Your task to perform on an android device: open app "Microsoft Outlook" (install if not already installed) Image 0: 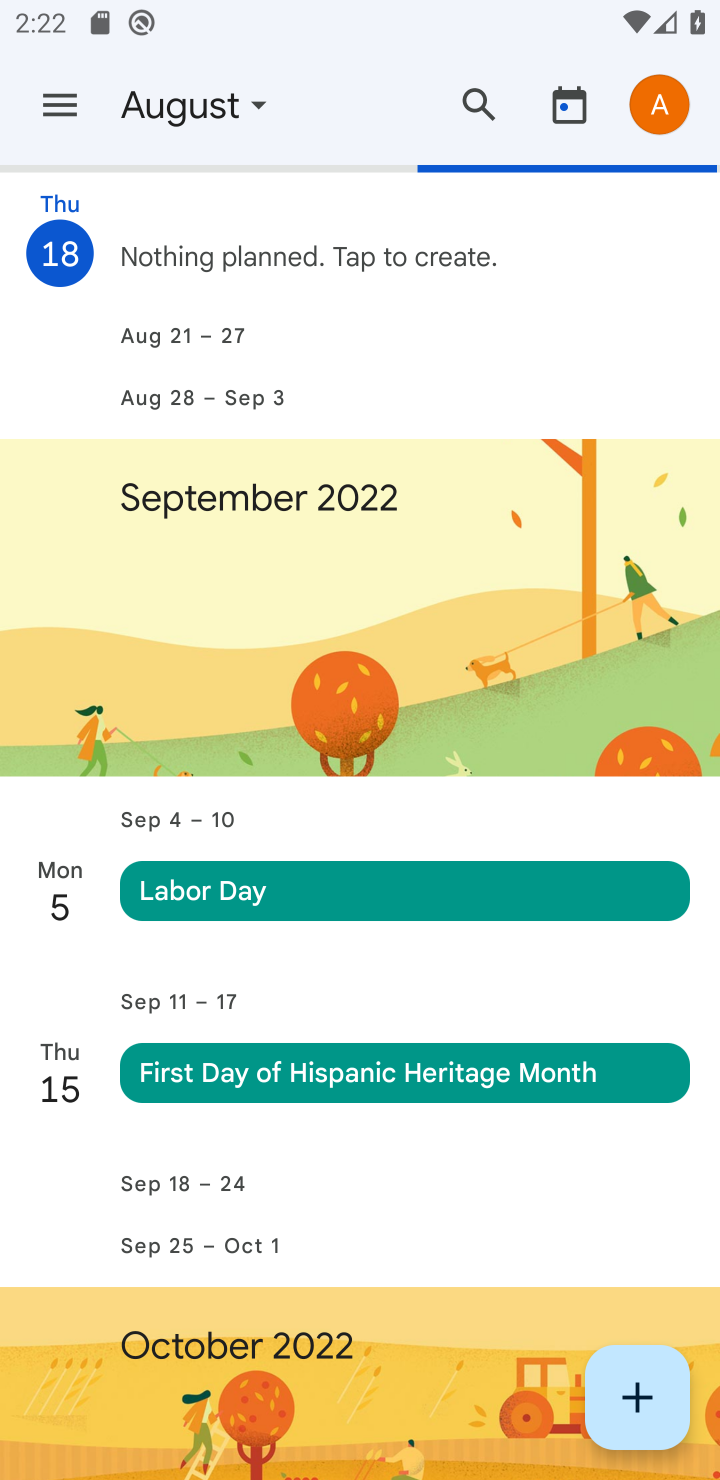
Step 0: press home button
Your task to perform on an android device: open app "Microsoft Outlook" (install if not already installed) Image 1: 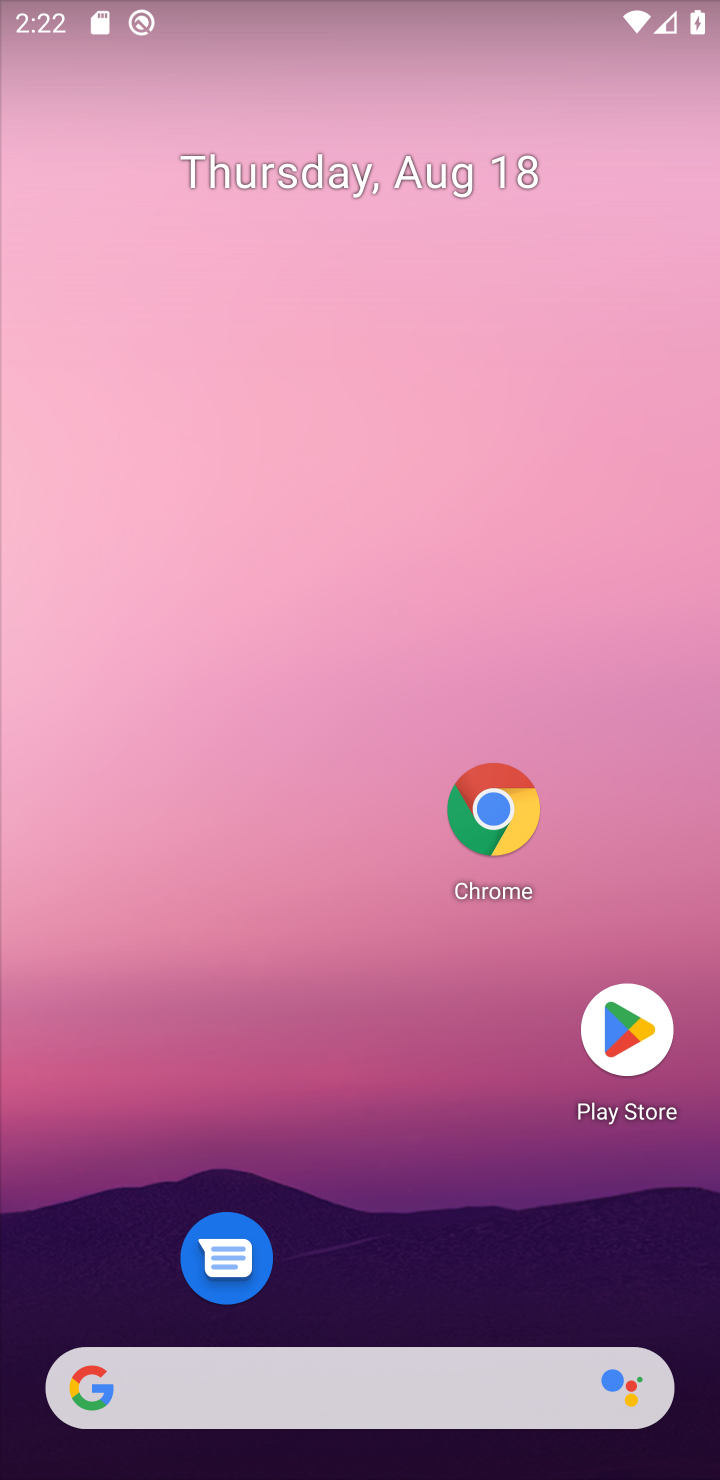
Step 1: drag from (315, 1037) to (367, 462)
Your task to perform on an android device: open app "Microsoft Outlook" (install if not already installed) Image 2: 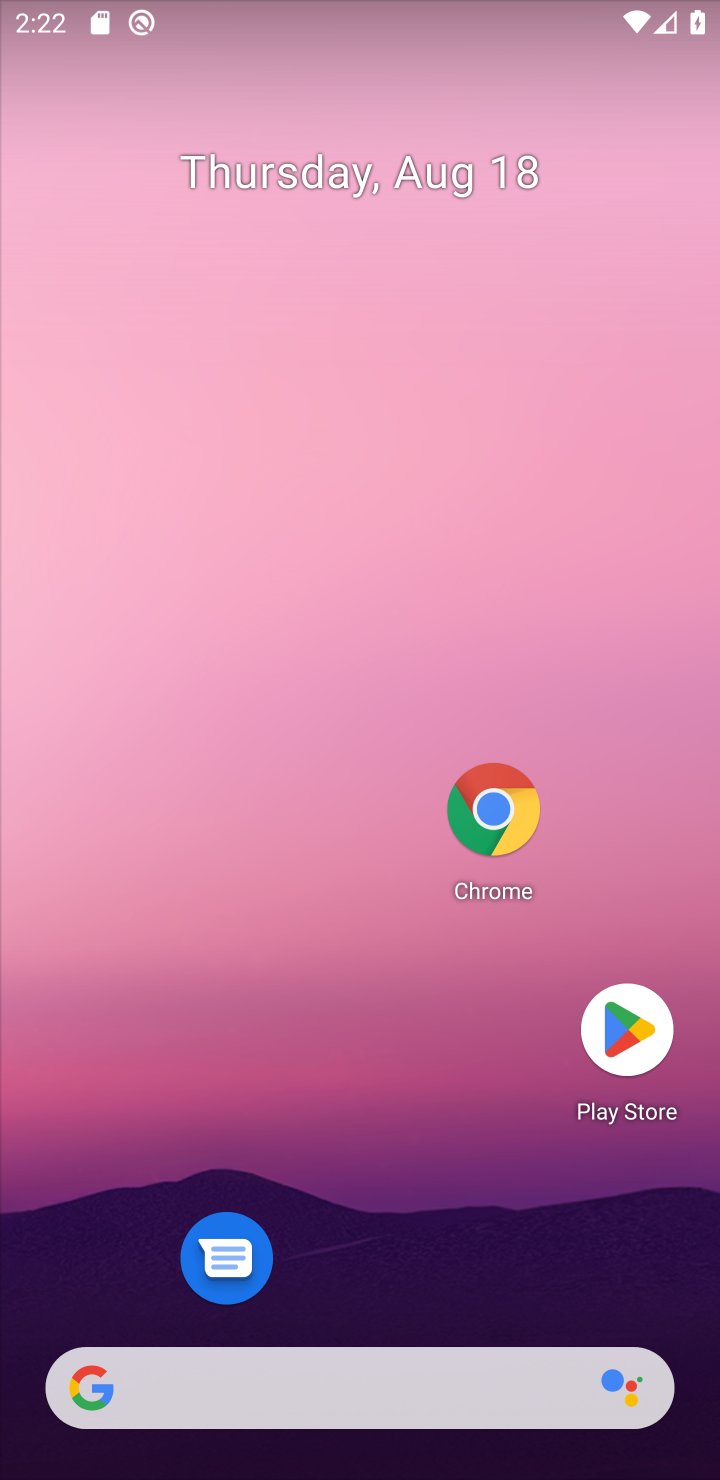
Step 2: drag from (340, 774) to (340, 653)
Your task to perform on an android device: open app "Microsoft Outlook" (install if not already installed) Image 3: 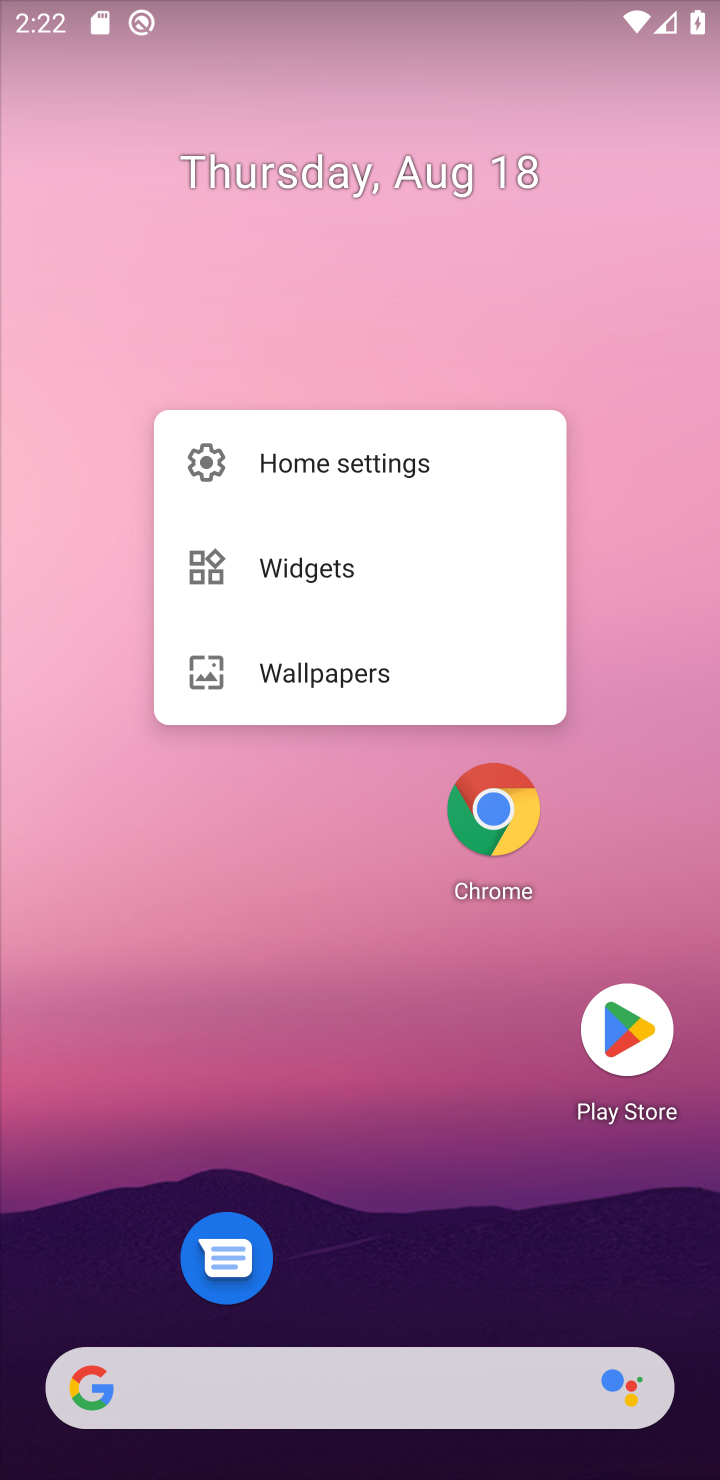
Step 3: click (382, 1227)
Your task to perform on an android device: open app "Microsoft Outlook" (install if not already installed) Image 4: 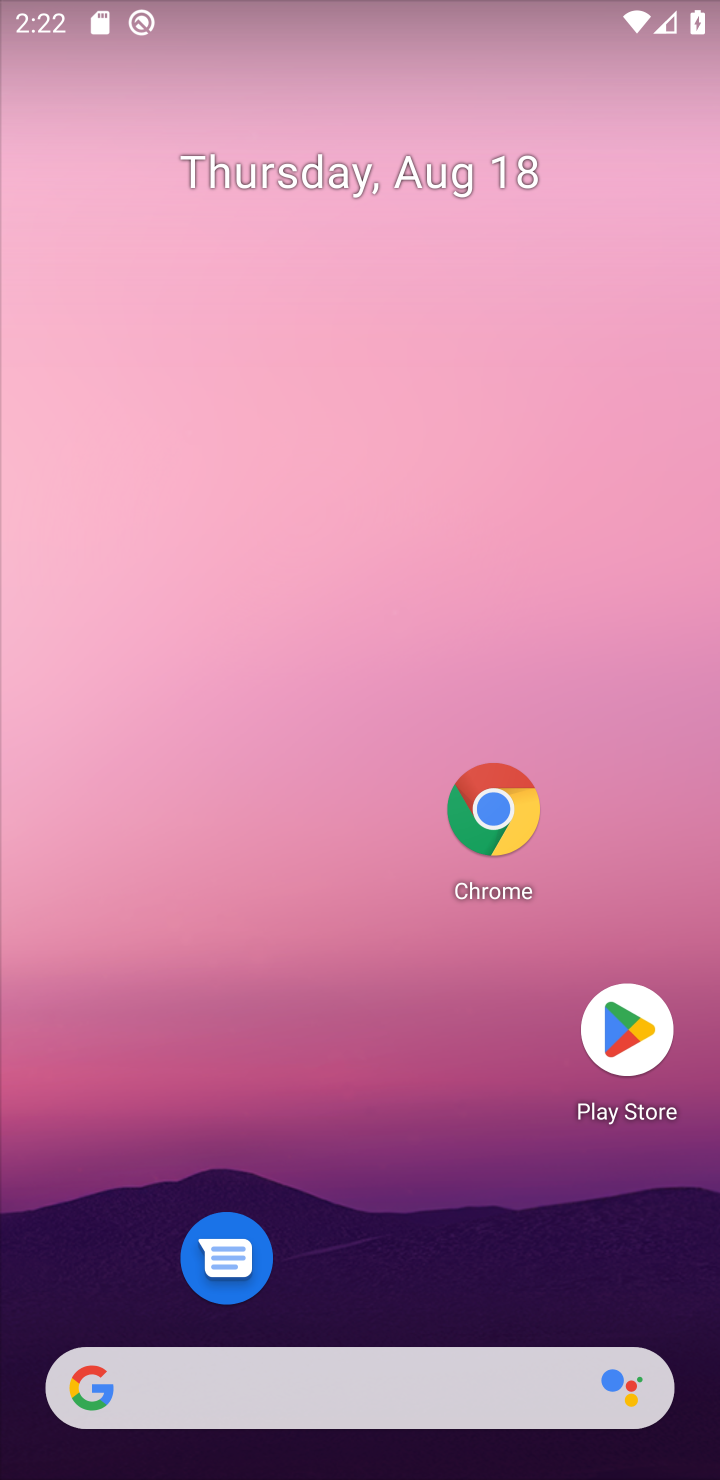
Step 4: drag from (378, 1297) to (376, 330)
Your task to perform on an android device: open app "Microsoft Outlook" (install if not already installed) Image 5: 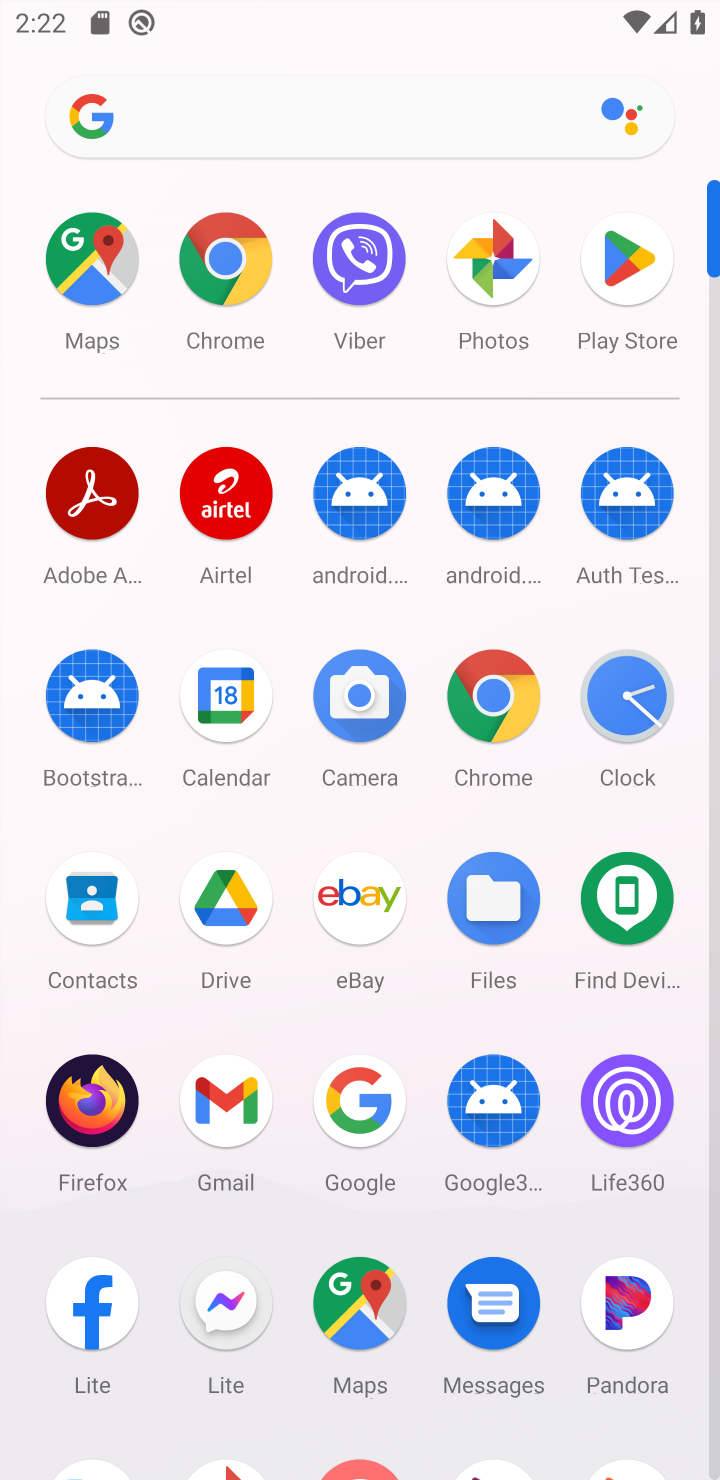
Step 5: click (486, 680)
Your task to perform on an android device: open app "Microsoft Outlook" (install if not already installed) Image 6: 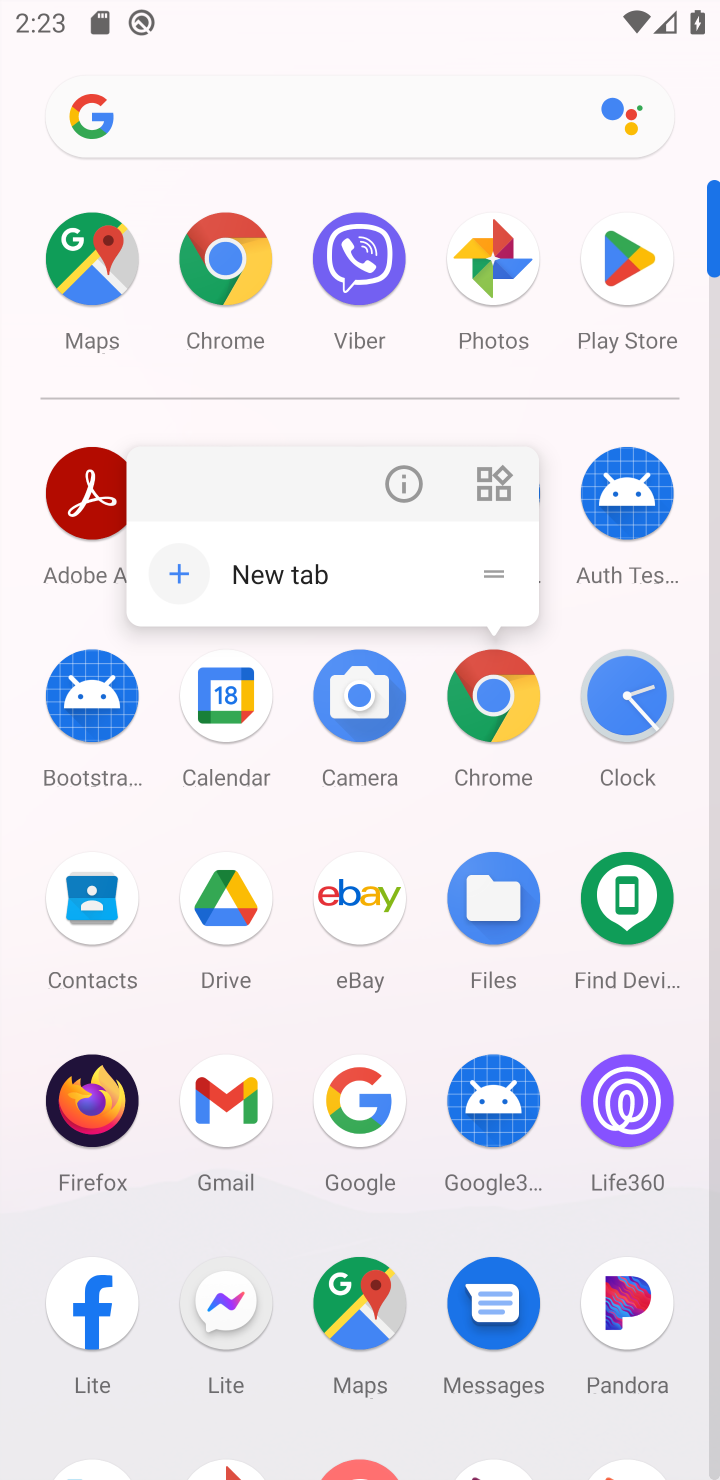
Step 6: click (486, 680)
Your task to perform on an android device: open app "Microsoft Outlook" (install if not already installed) Image 7: 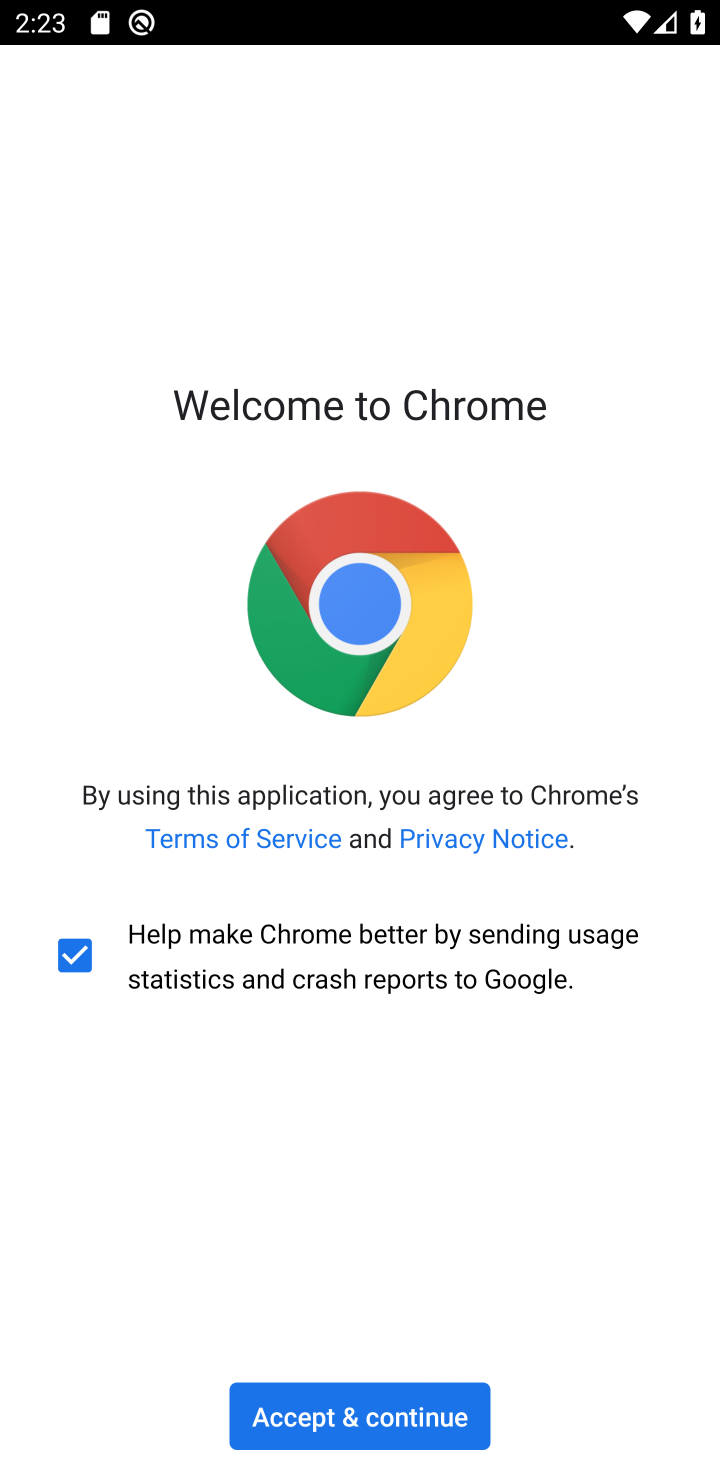
Step 7: press home button
Your task to perform on an android device: open app "Microsoft Outlook" (install if not already installed) Image 8: 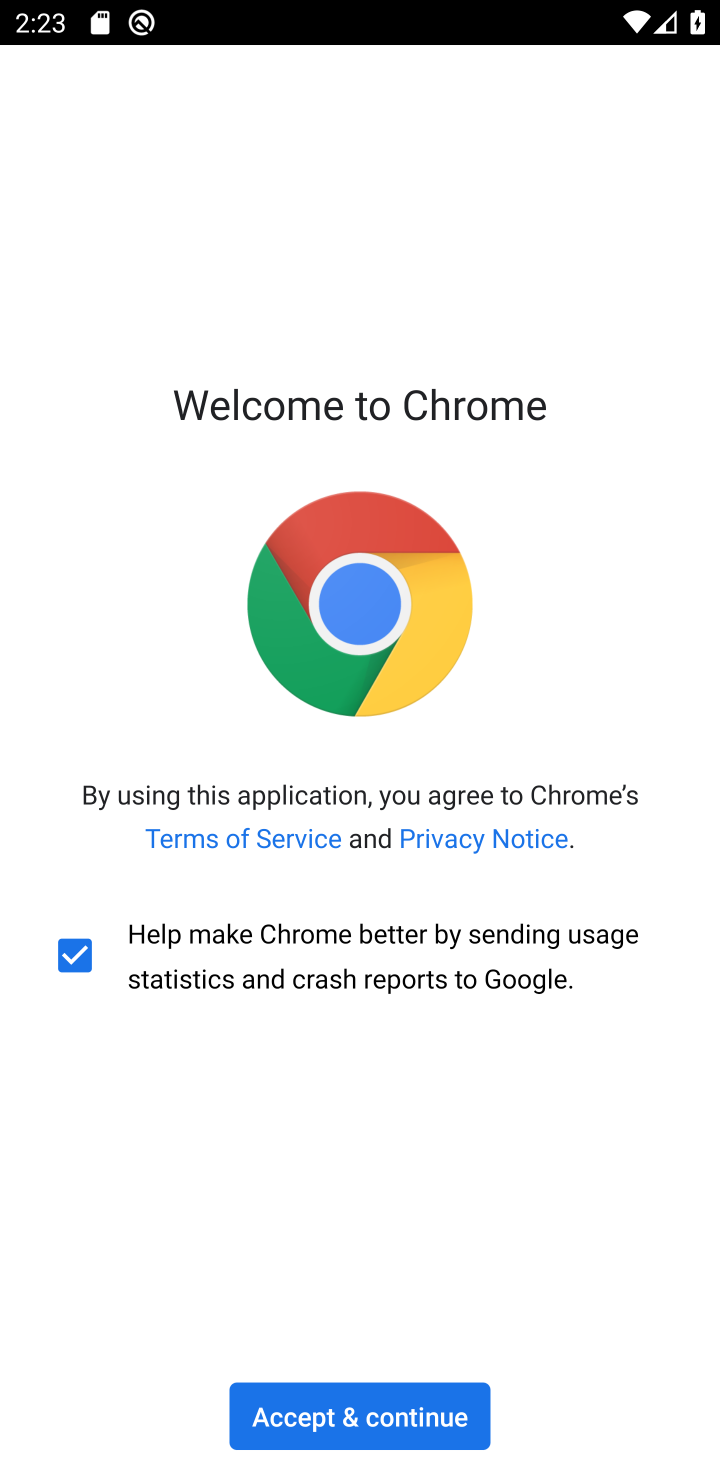
Step 8: press home button
Your task to perform on an android device: open app "Microsoft Outlook" (install if not already installed) Image 9: 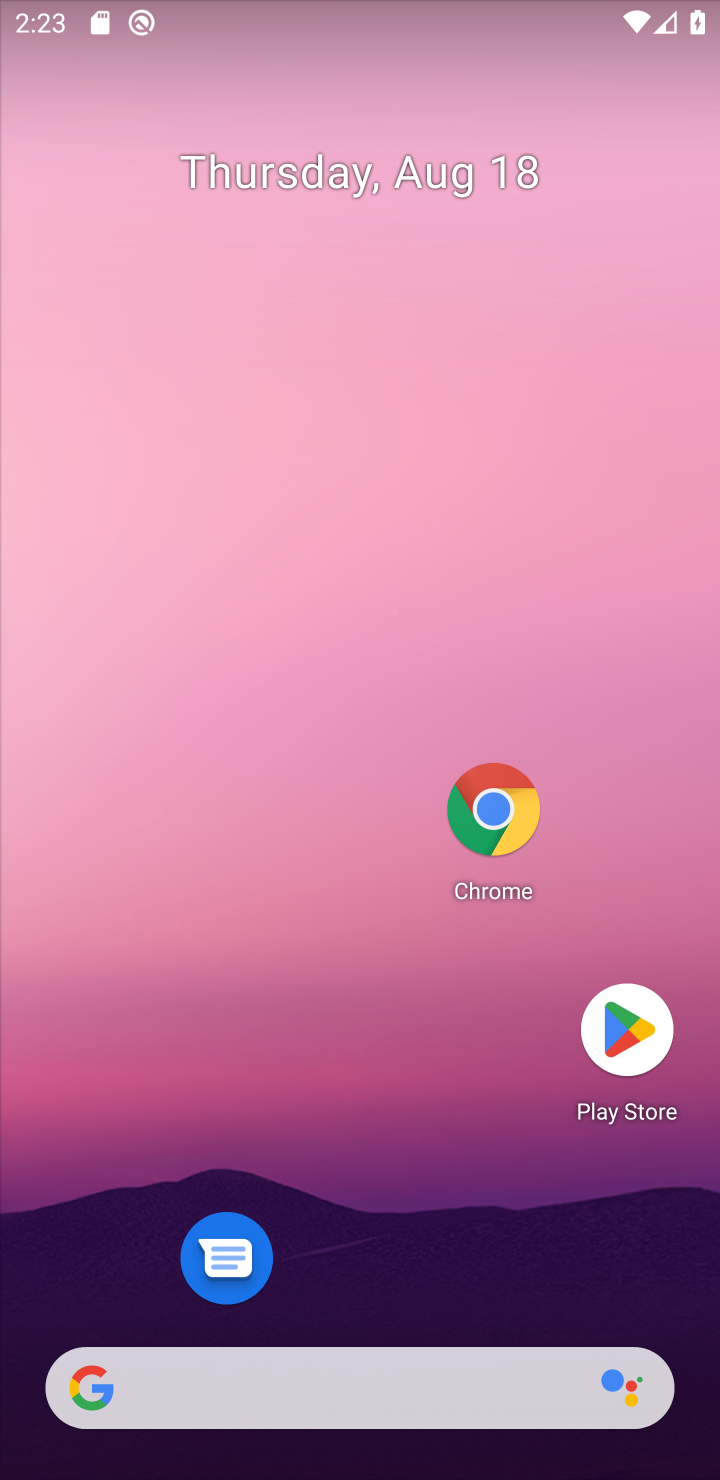
Step 9: drag from (415, 1119) to (418, 285)
Your task to perform on an android device: open app "Microsoft Outlook" (install if not already installed) Image 10: 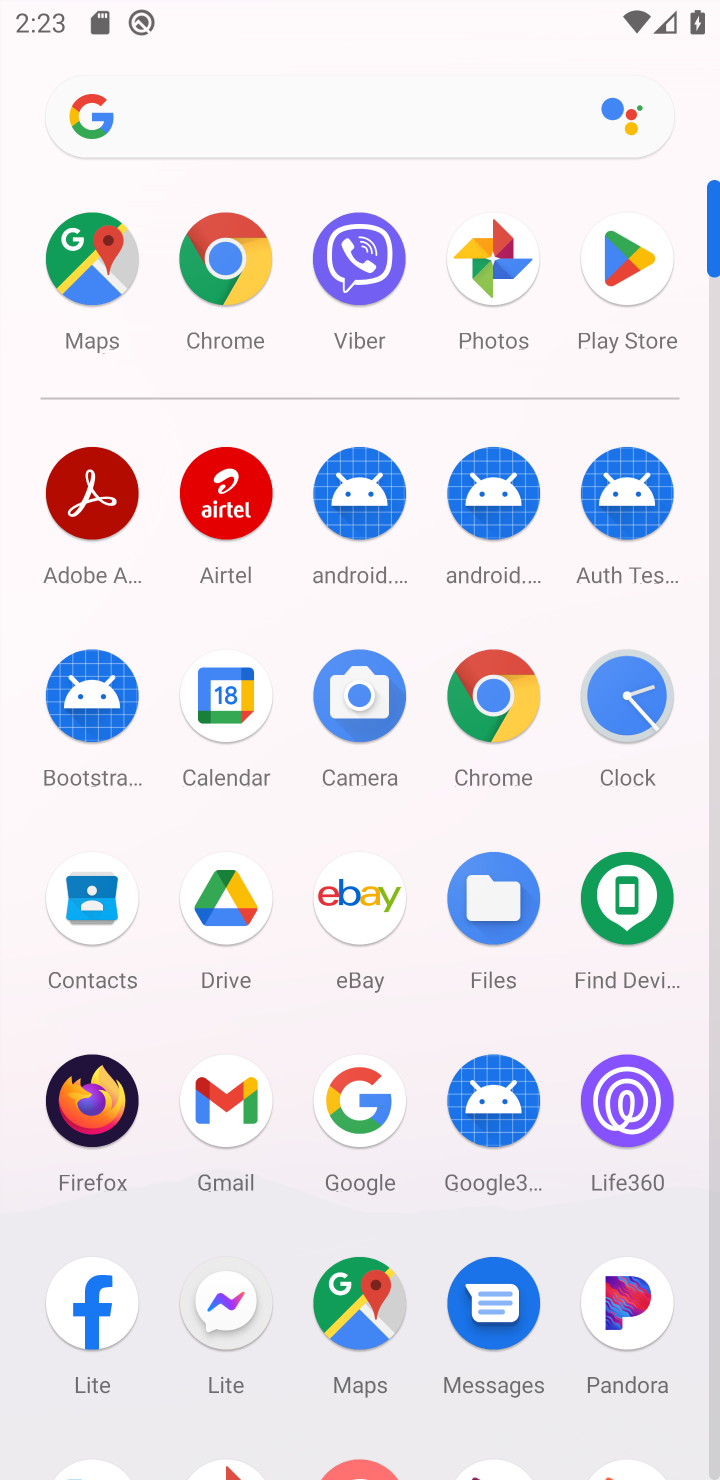
Step 10: click (631, 235)
Your task to perform on an android device: open app "Microsoft Outlook" (install if not already installed) Image 11: 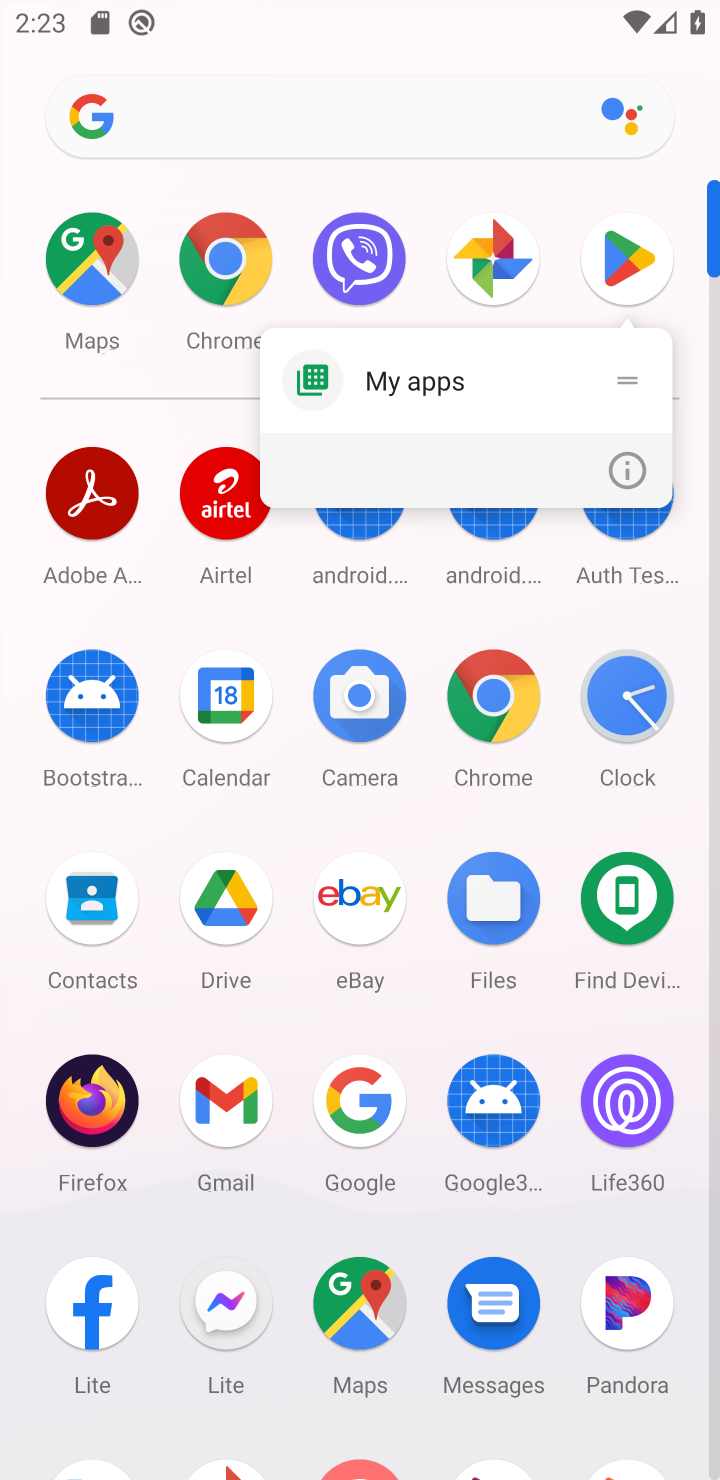
Step 11: click (631, 235)
Your task to perform on an android device: open app "Microsoft Outlook" (install if not already installed) Image 12: 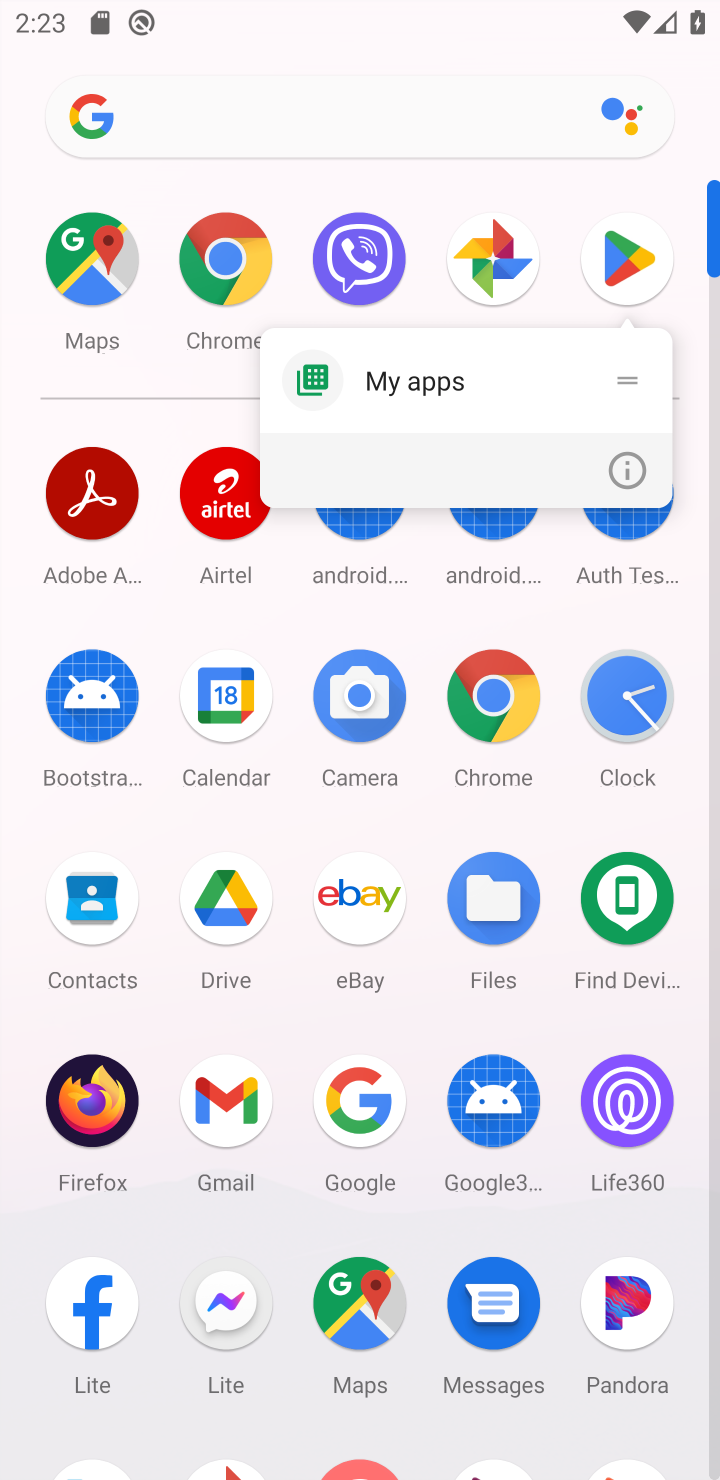
Step 12: click (620, 250)
Your task to perform on an android device: open app "Microsoft Outlook" (install if not already installed) Image 13: 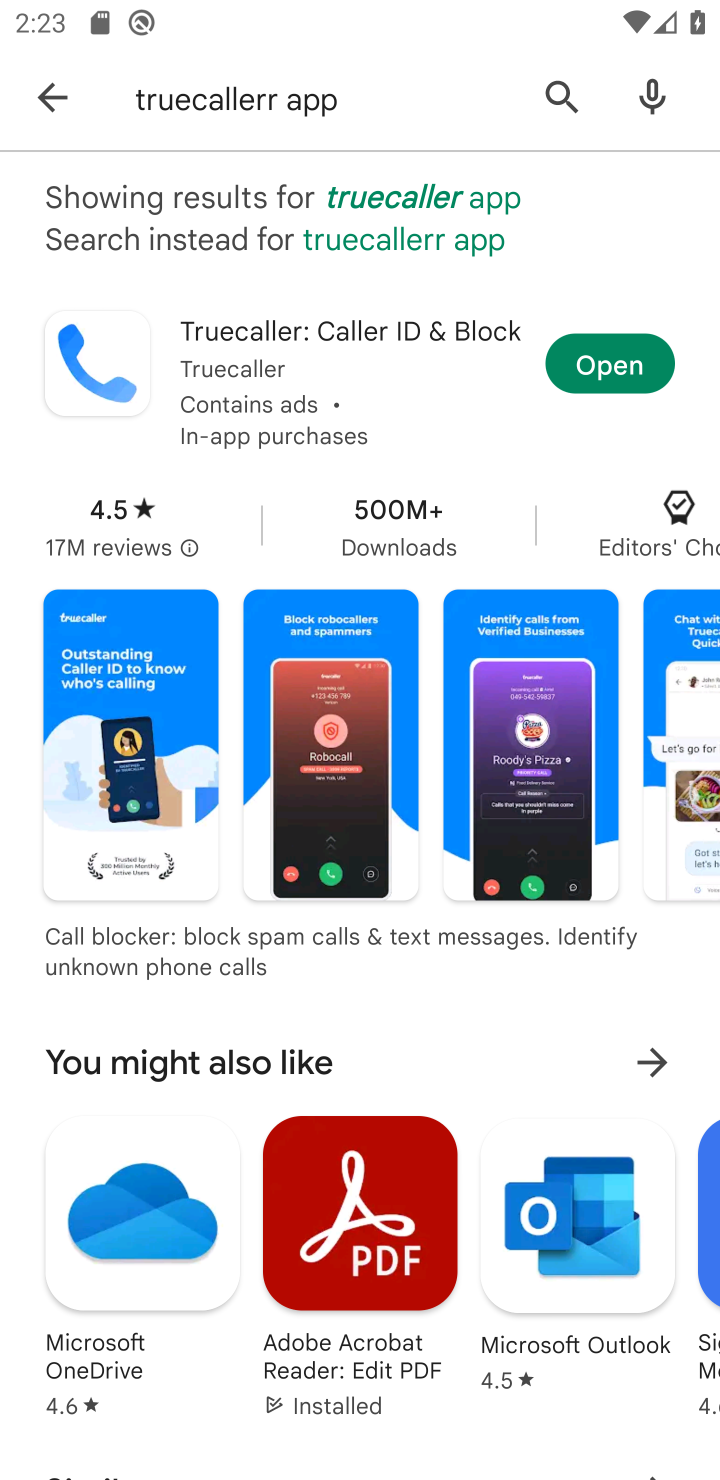
Step 13: click (556, 74)
Your task to perform on an android device: open app "Microsoft Outlook" (install if not already installed) Image 14: 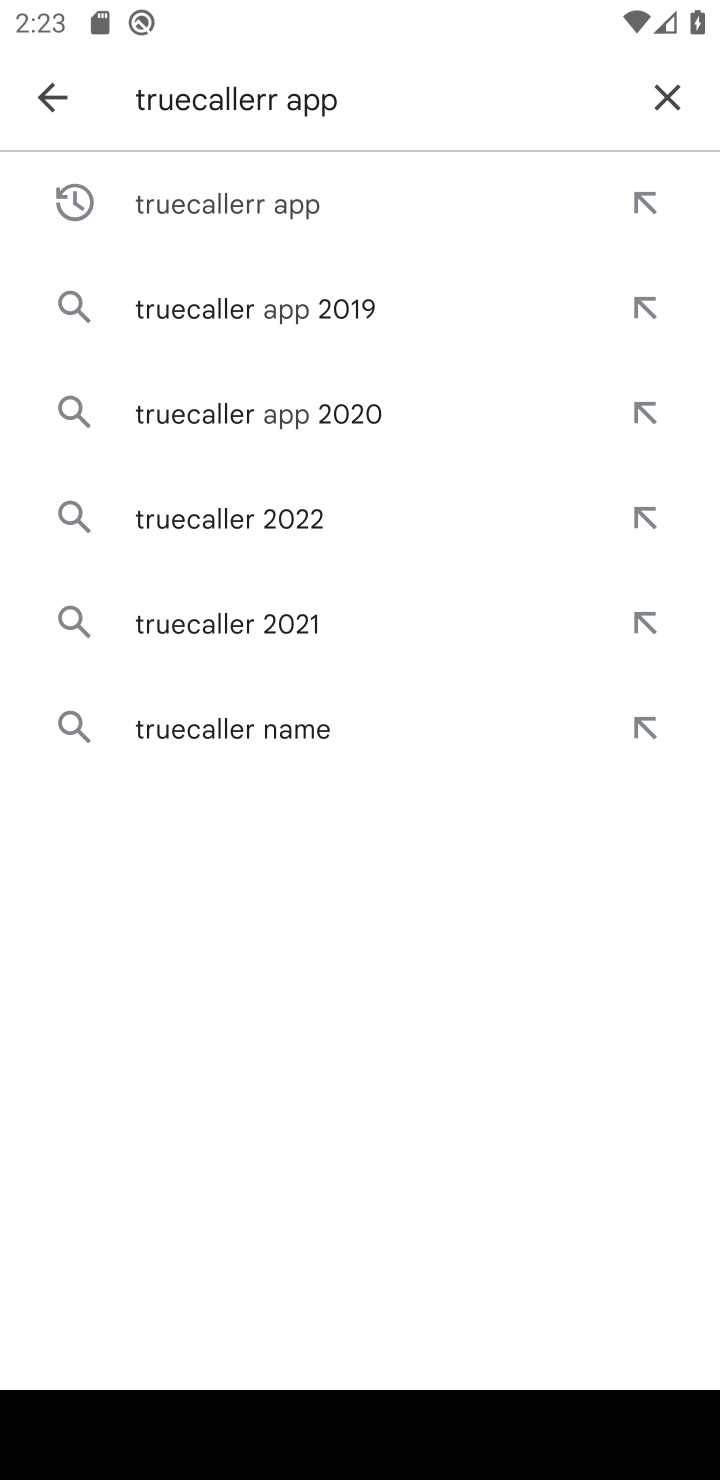
Step 14: click (676, 70)
Your task to perform on an android device: open app "Microsoft Outlook" (install if not already installed) Image 15: 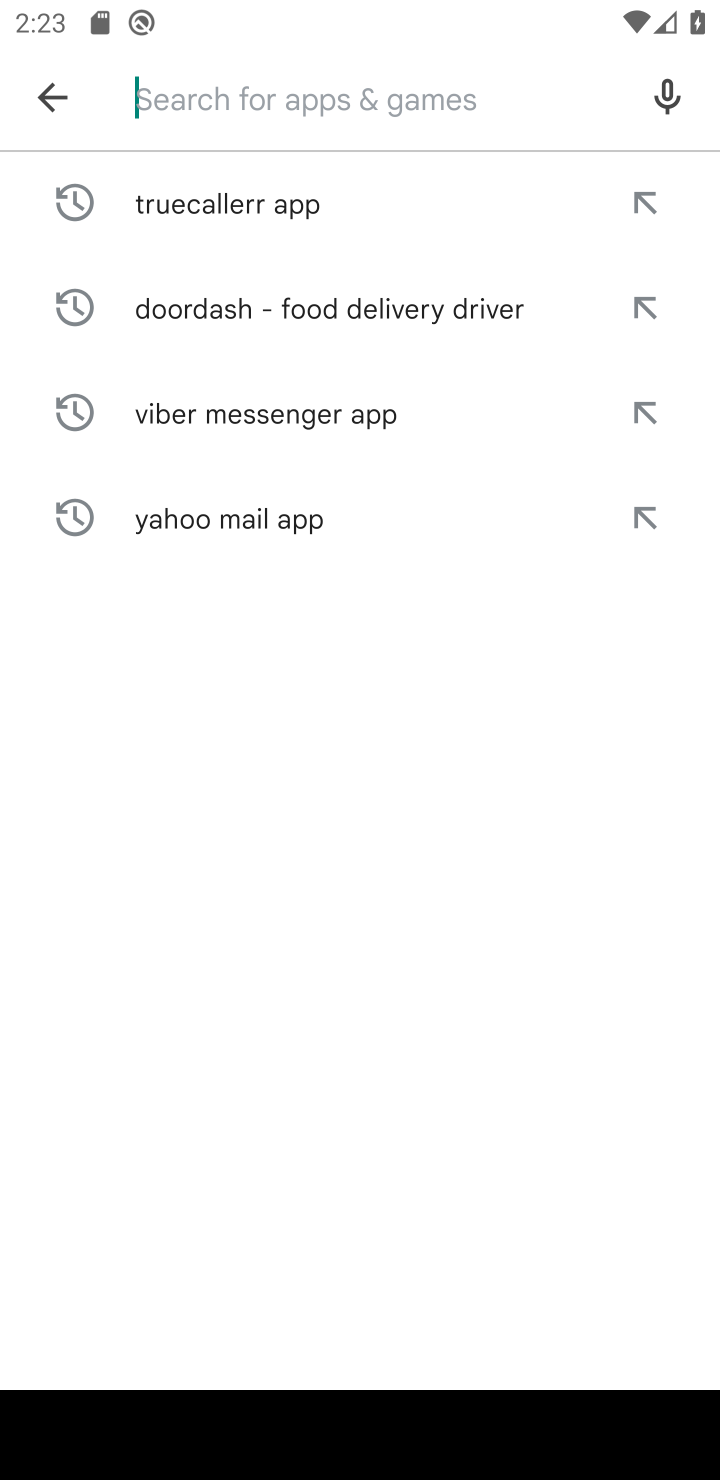
Step 15: click (280, 78)
Your task to perform on an android device: open app "Microsoft Outlook" (install if not already installed) Image 16: 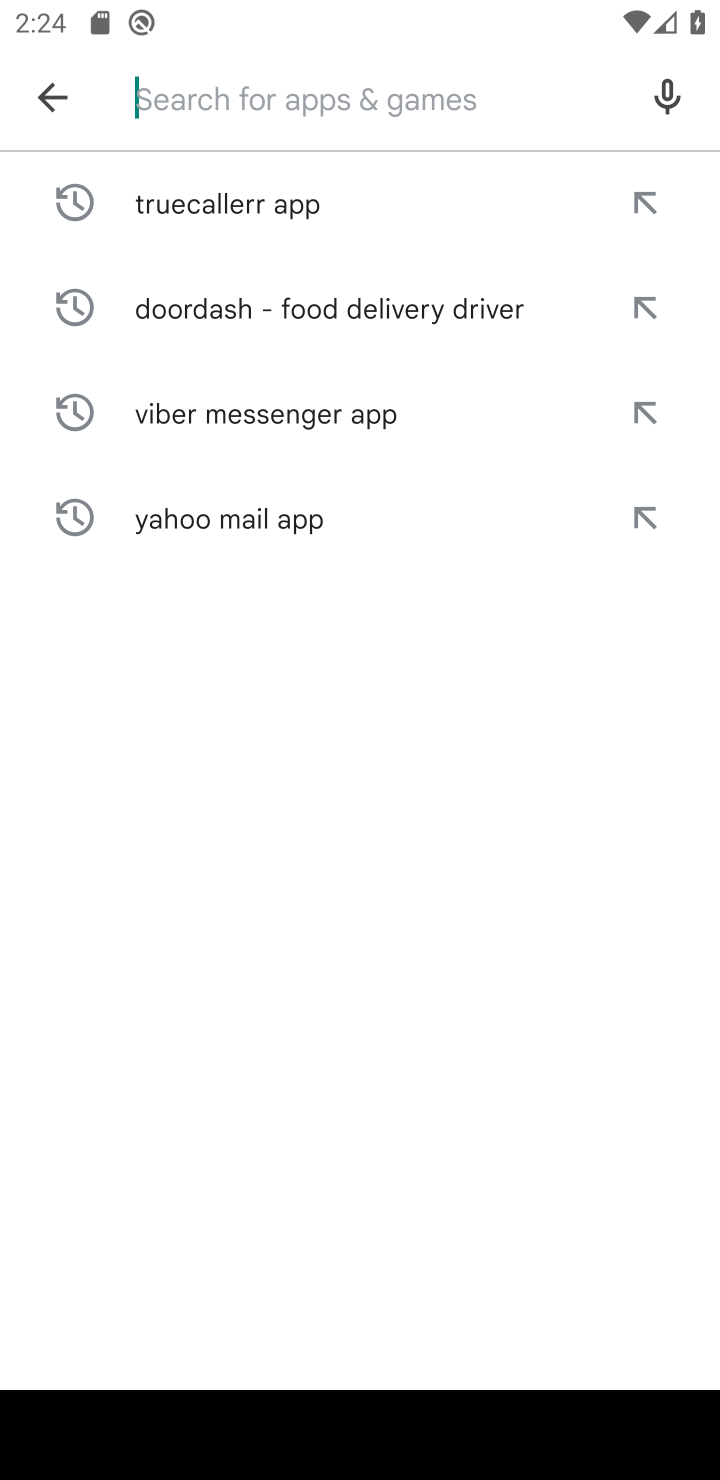
Step 16: type "microsoft outlook "
Your task to perform on an android device: open app "Microsoft Outlook" (install if not already installed) Image 17: 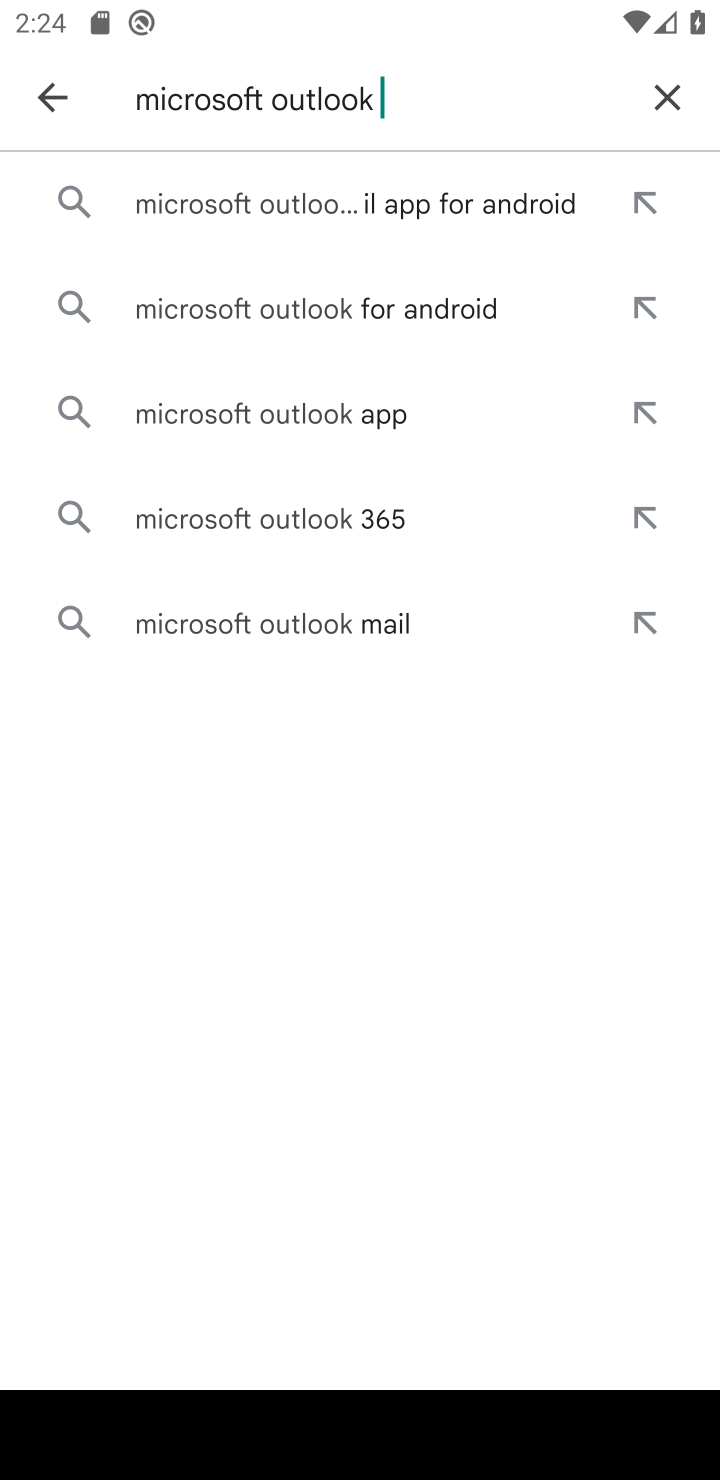
Step 17: click (332, 325)
Your task to perform on an android device: open app "Microsoft Outlook" (install if not already installed) Image 18: 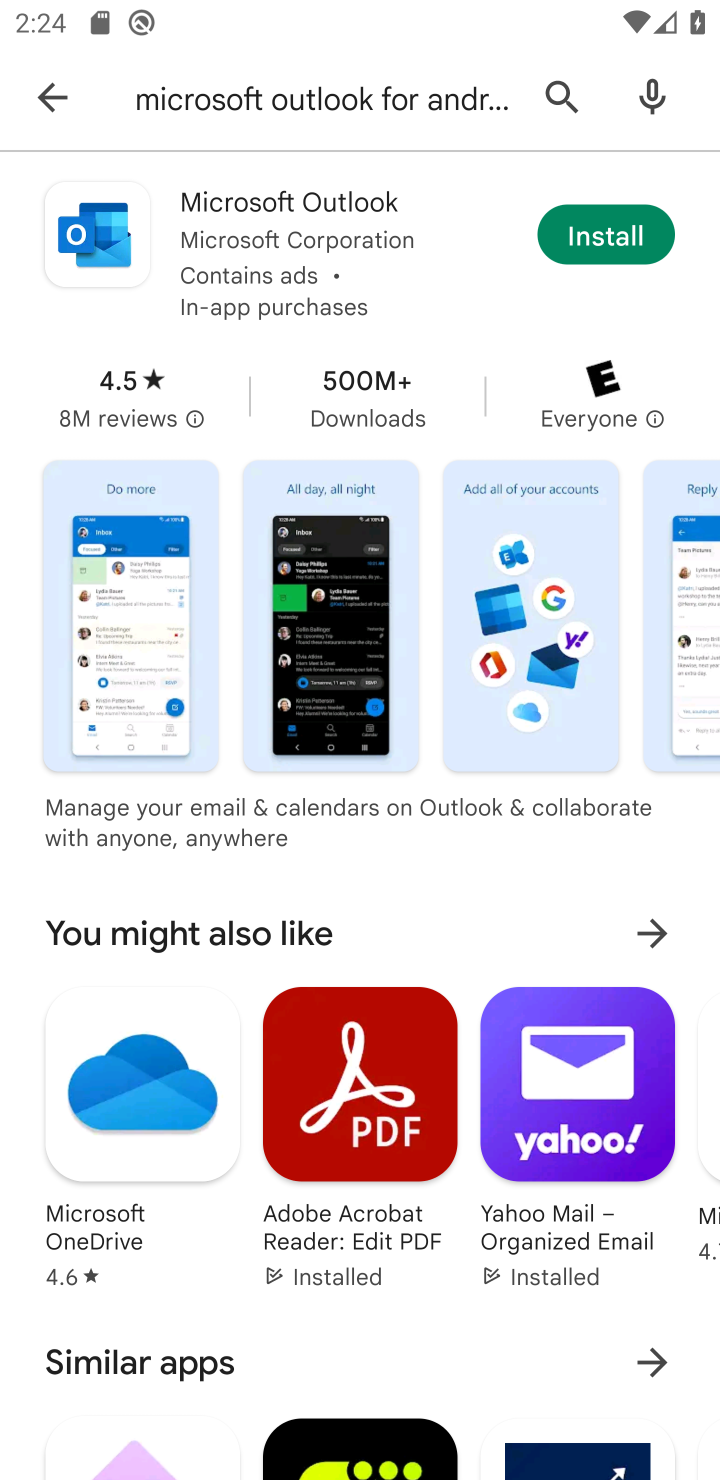
Step 18: click (603, 235)
Your task to perform on an android device: open app "Microsoft Outlook" (install if not already installed) Image 19: 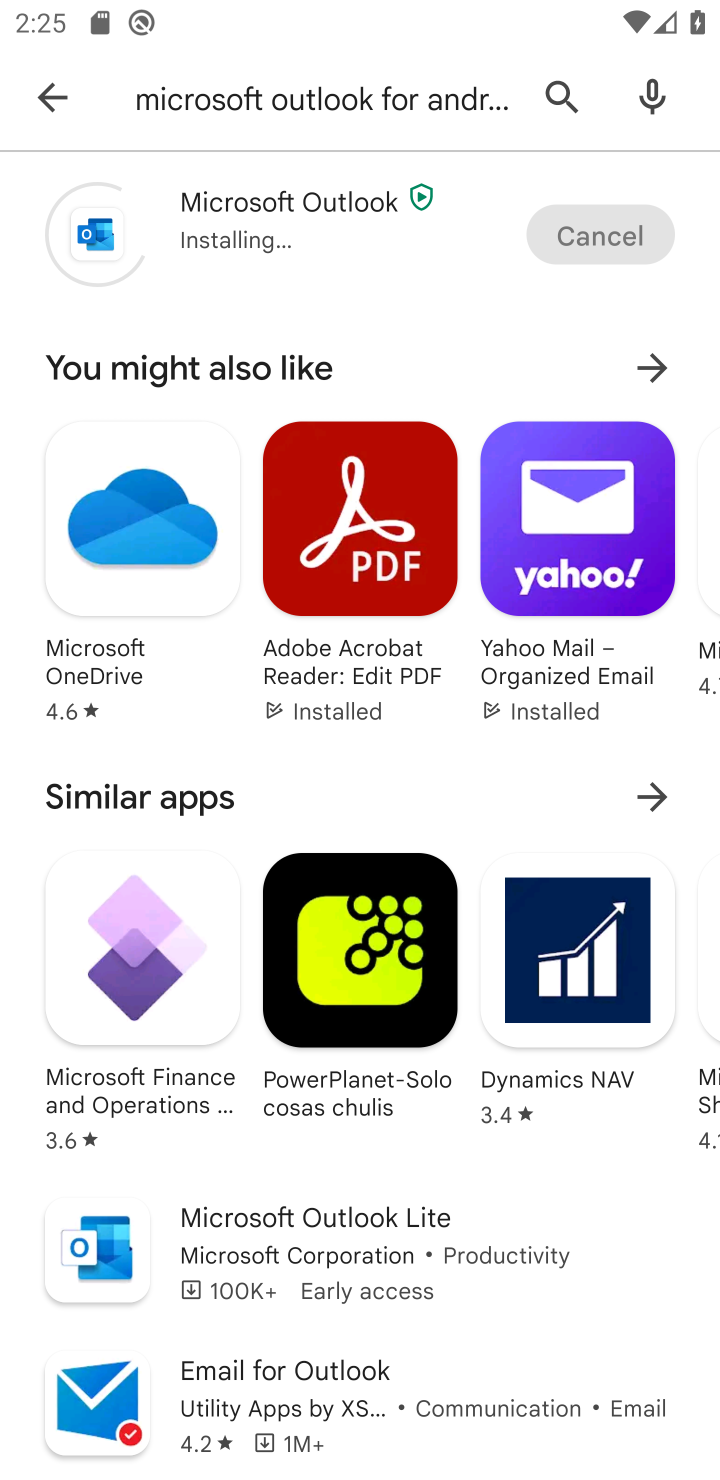
Step 19: task complete